Your task to perform on an android device: Set the phone to "Do not disturb". Image 0: 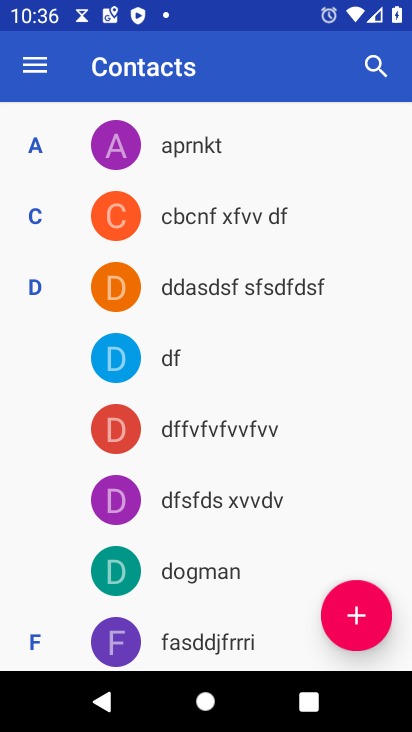
Step 0: press home button
Your task to perform on an android device: Set the phone to "Do not disturb". Image 1: 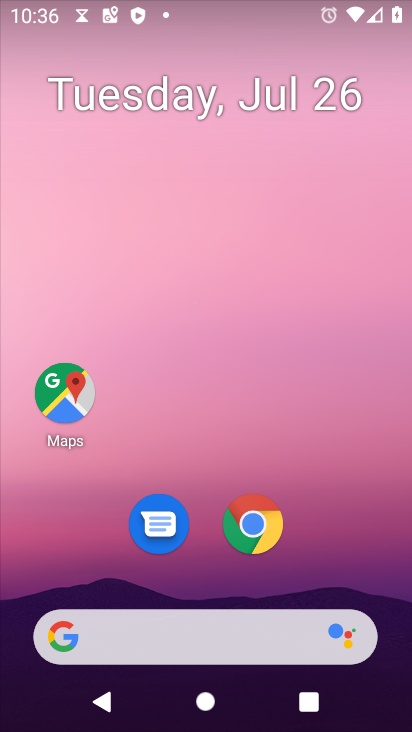
Step 1: drag from (196, 631) to (335, 71)
Your task to perform on an android device: Set the phone to "Do not disturb". Image 2: 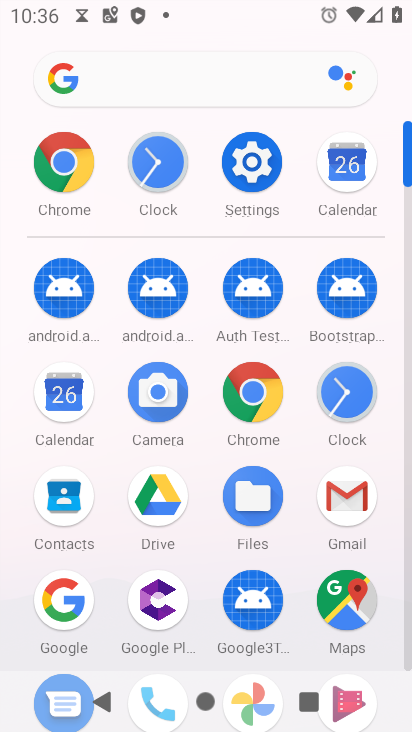
Step 2: click (250, 169)
Your task to perform on an android device: Set the phone to "Do not disturb". Image 3: 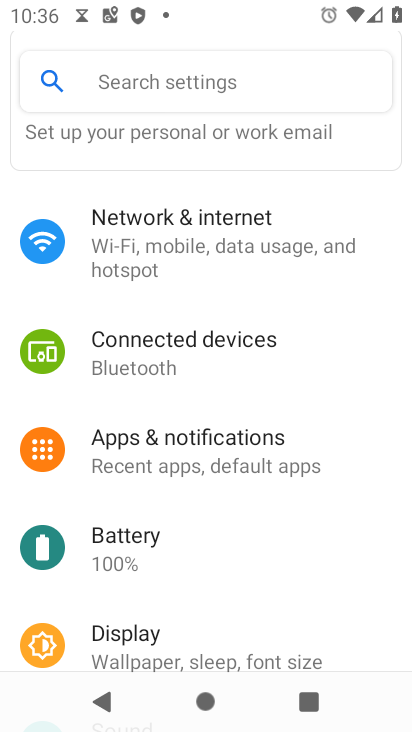
Step 3: drag from (204, 634) to (366, 104)
Your task to perform on an android device: Set the phone to "Do not disturb". Image 4: 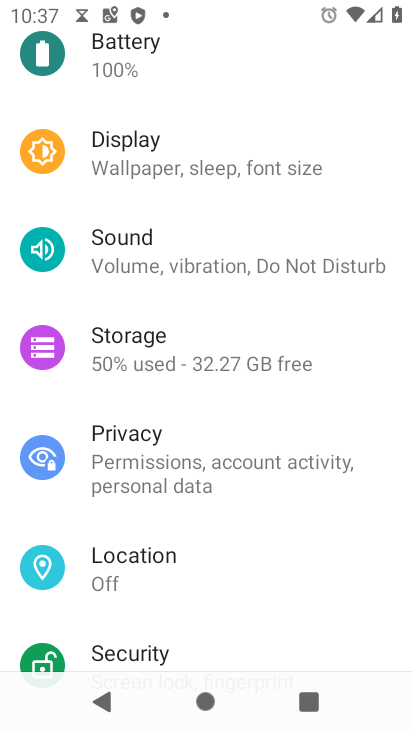
Step 4: click (191, 261)
Your task to perform on an android device: Set the phone to "Do not disturb". Image 5: 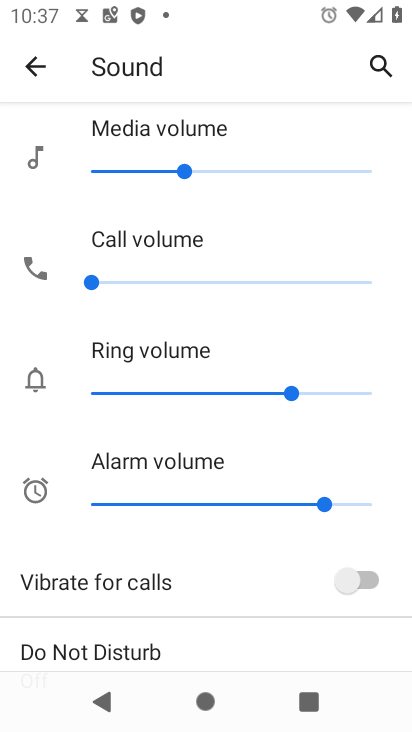
Step 5: drag from (142, 552) to (271, 76)
Your task to perform on an android device: Set the phone to "Do not disturb". Image 6: 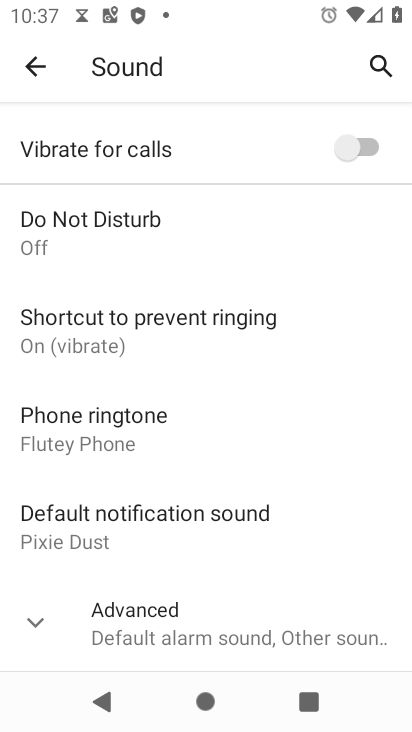
Step 6: click (85, 296)
Your task to perform on an android device: Set the phone to "Do not disturb". Image 7: 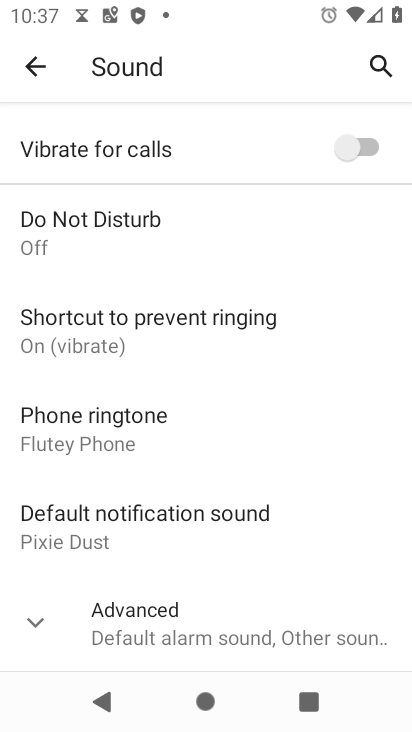
Step 7: click (73, 232)
Your task to perform on an android device: Set the phone to "Do not disturb". Image 8: 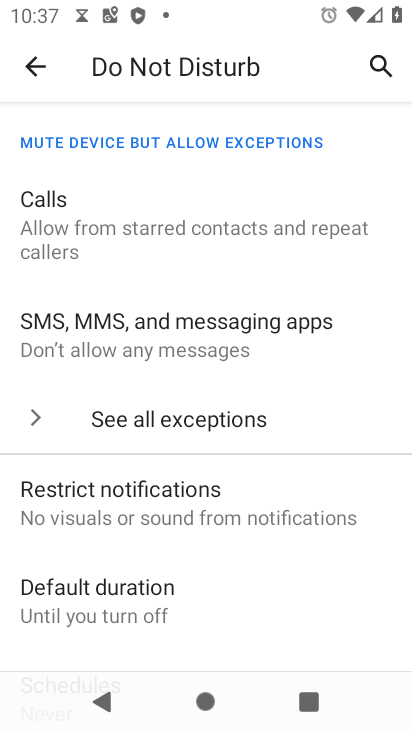
Step 8: drag from (201, 636) to (334, 70)
Your task to perform on an android device: Set the phone to "Do not disturb". Image 9: 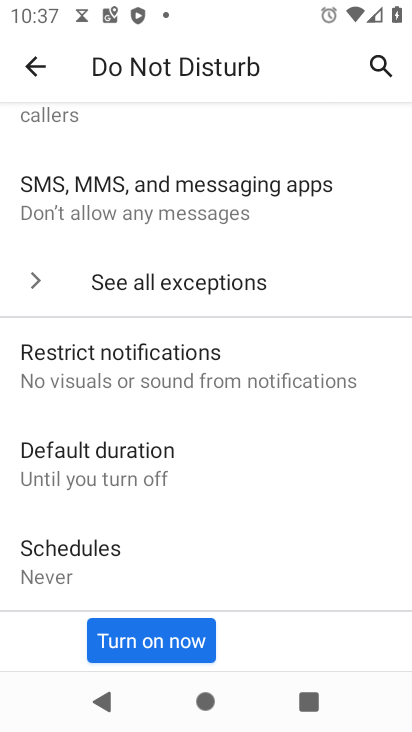
Step 9: click (161, 639)
Your task to perform on an android device: Set the phone to "Do not disturb". Image 10: 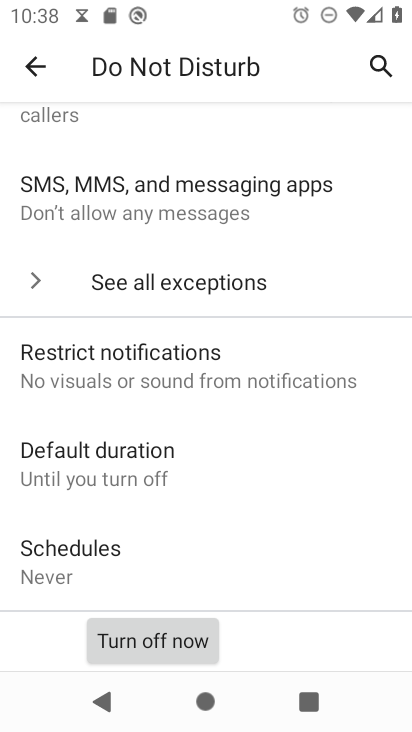
Step 10: task complete